Your task to perform on an android device: see creations saved in the google photos Image 0: 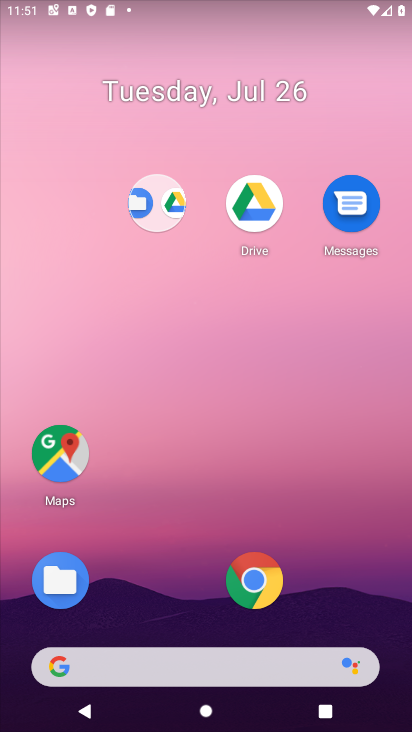
Step 0: drag from (160, 579) to (132, 115)
Your task to perform on an android device: see creations saved in the google photos Image 1: 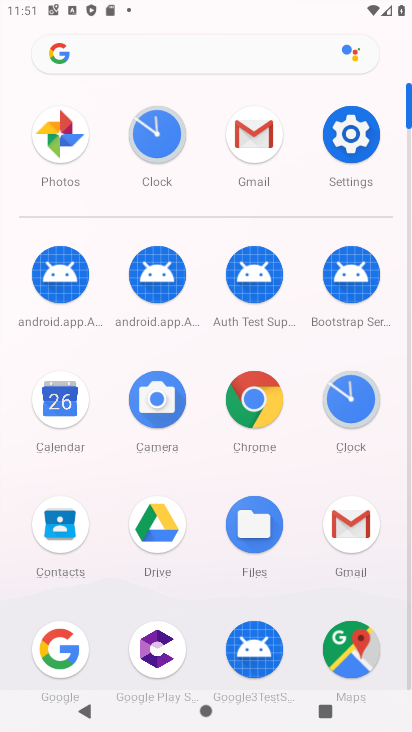
Step 1: click (49, 163)
Your task to perform on an android device: see creations saved in the google photos Image 2: 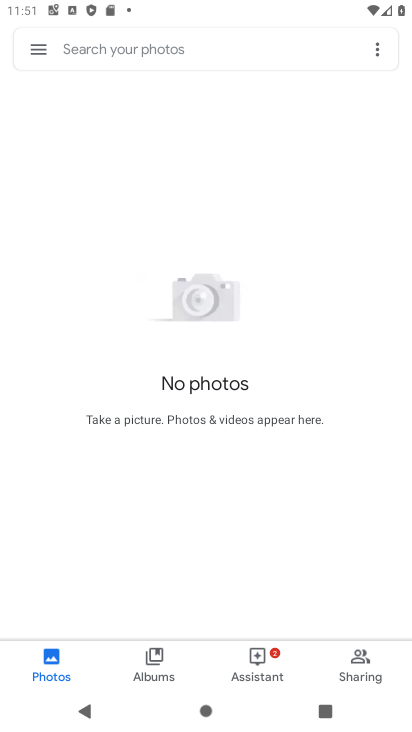
Step 2: task complete